Your task to perform on an android device: Turn on the flashlight Image 0: 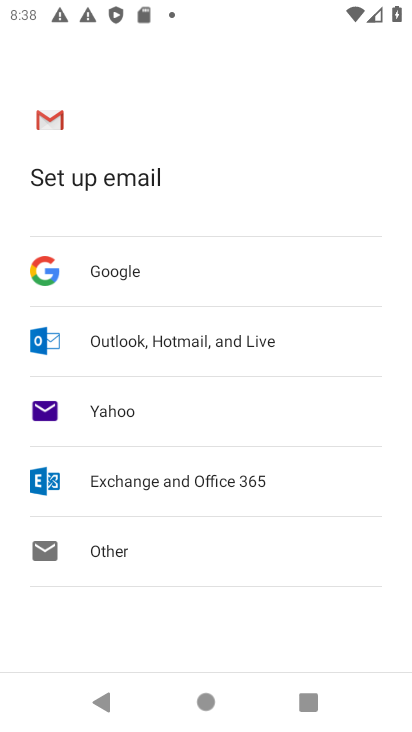
Step 0: press home button
Your task to perform on an android device: Turn on the flashlight Image 1: 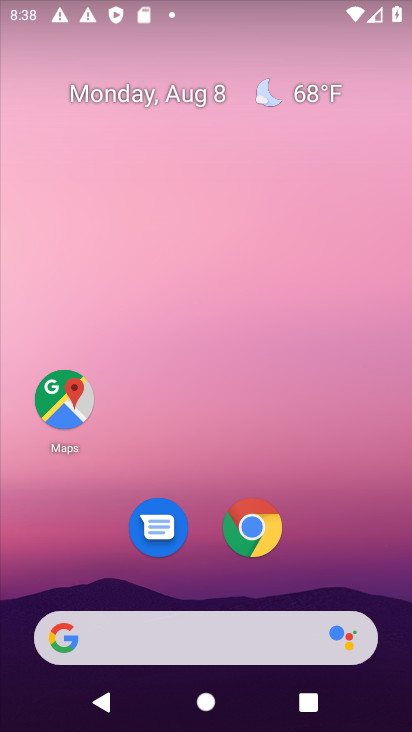
Step 1: drag from (390, 695) to (316, 116)
Your task to perform on an android device: Turn on the flashlight Image 2: 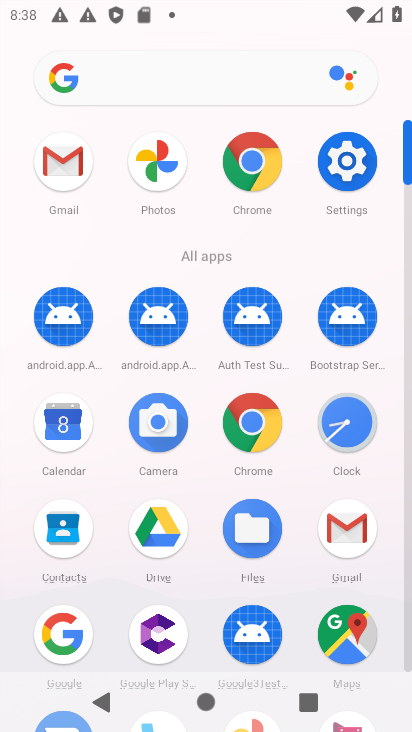
Step 2: click (347, 148)
Your task to perform on an android device: Turn on the flashlight Image 3: 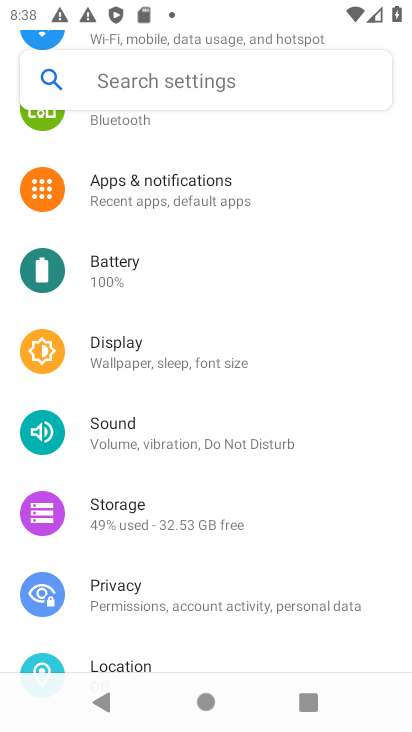
Step 3: click (102, 348)
Your task to perform on an android device: Turn on the flashlight Image 4: 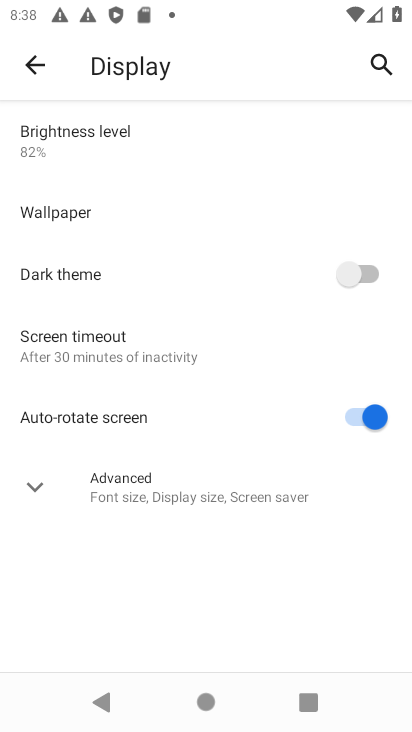
Step 4: click (22, 488)
Your task to perform on an android device: Turn on the flashlight Image 5: 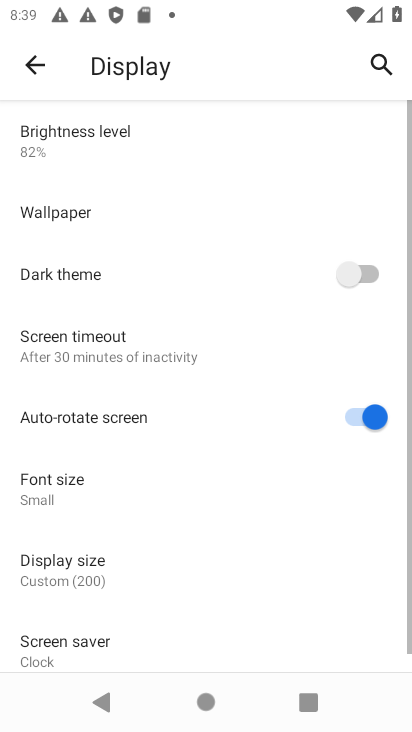
Step 5: task complete